Your task to perform on an android device: turn off data saver in the chrome app Image 0: 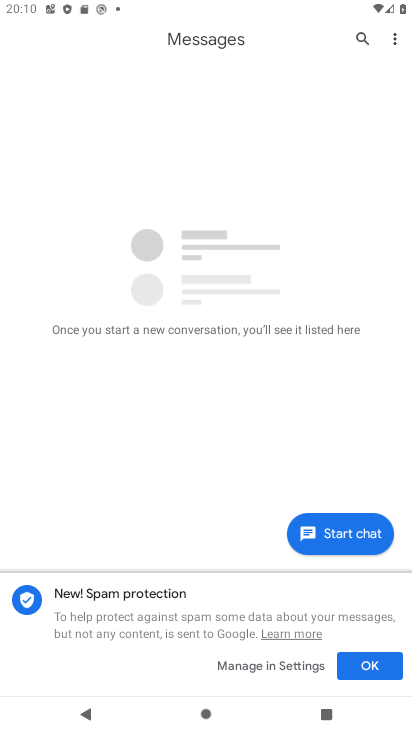
Step 0: press home button
Your task to perform on an android device: turn off data saver in the chrome app Image 1: 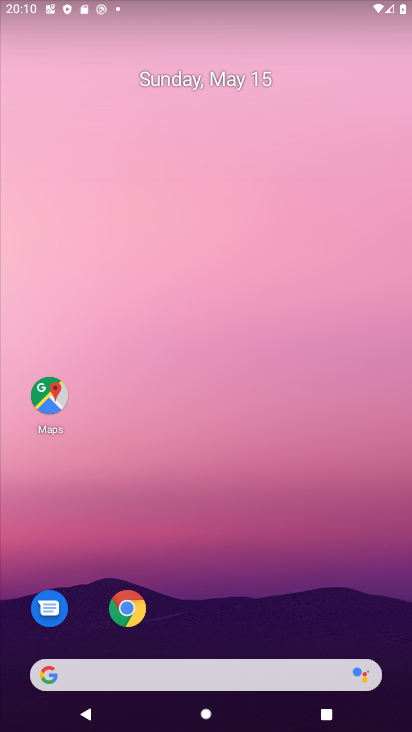
Step 1: click (127, 602)
Your task to perform on an android device: turn off data saver in the chrome app Image 2: 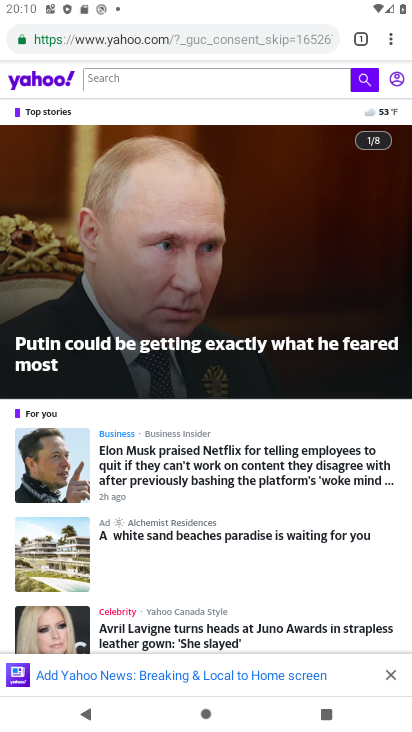
Step 2: click (382, 34)
Your task to perform on an android device: turn off data saver in the chrome app Image 3: 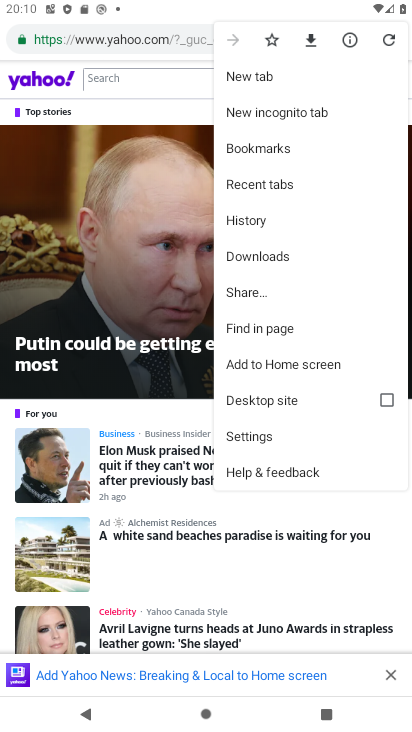
Step 3: click (246, 437)
Your task to perform on an android device: turn off data saver in the chrome app Image 4: 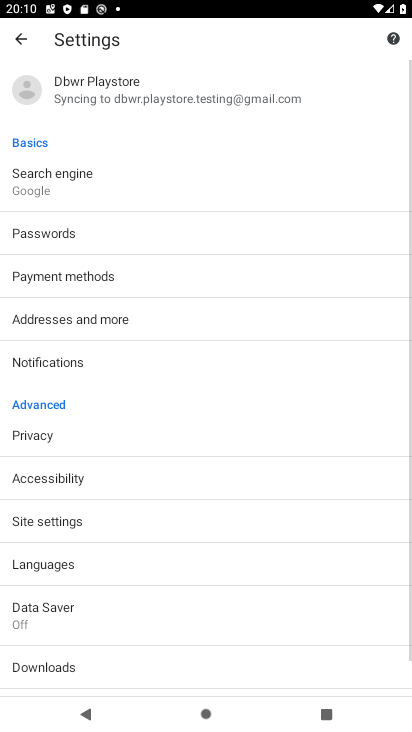
Step 4: click (49, 618)
Your task to perform on an android device: turn off data saver in the chrome app Image 5: 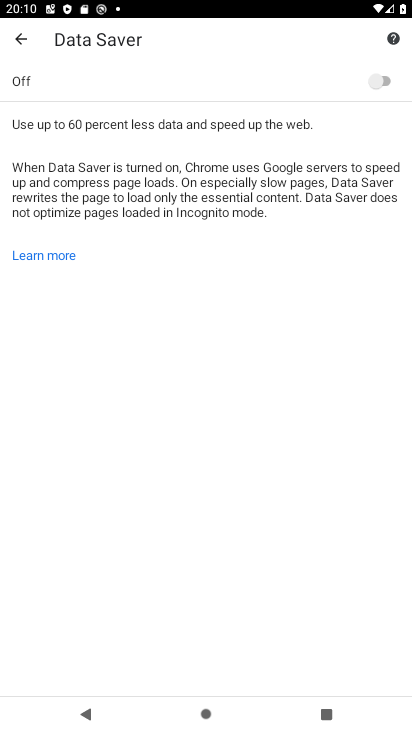
Step 5: task complete